Your task to perform on an android device: Go to sound settings Image 0: 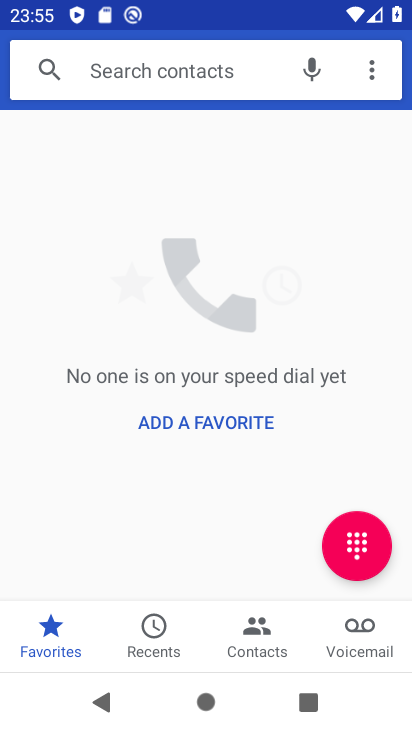
Step 0: press back button
Your task to perform on an android device: Go to sound settings Image 1: 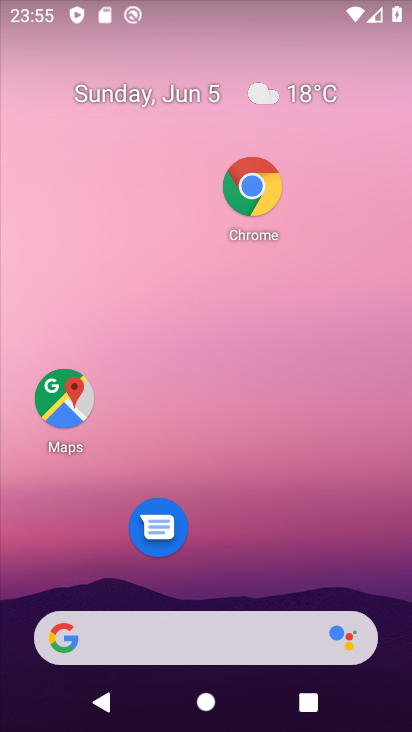
Step 1: drag from (215, 580) to (153, 257)
Your task to perform on an android device: Go to sound settings Image 2: 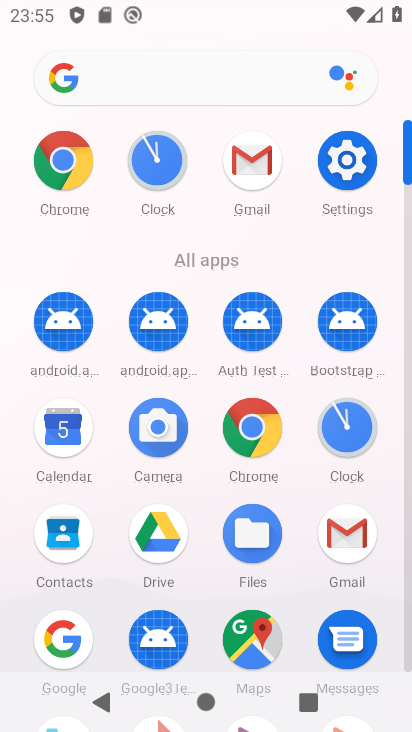
Step 2: click (347, 166)
Your task to perform on an android device: Go to sound settings Image 3: 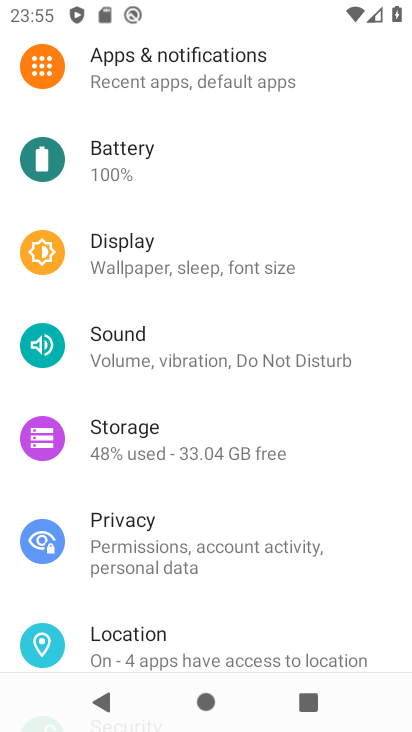
Step 3: click (241, 360)
Your task to perform on an android device: Go to sound settings Image 4: 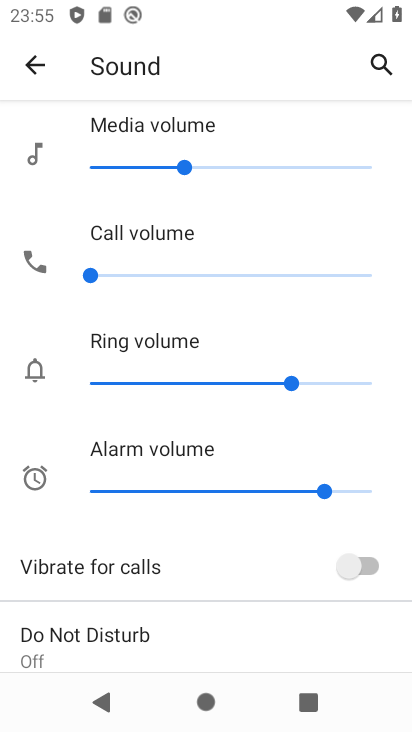
Step 4: task complete